Your task to perform on an android device: turn on improve location accuracy Image 0: 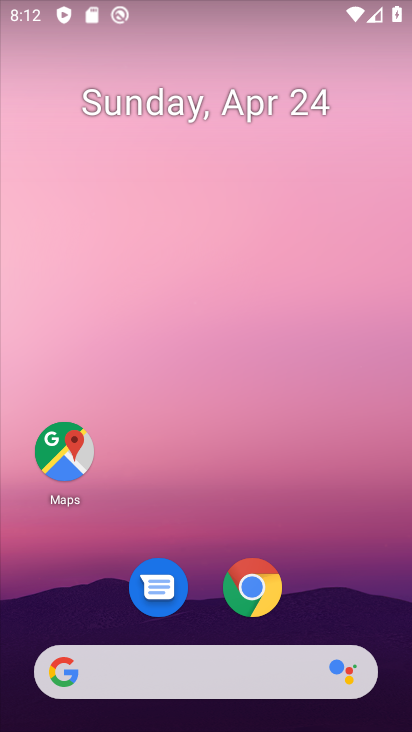
Step 0: drag from (216, 561) to (292, 11)
Your task to perform on an android device: turn on improve location accuracy Image 1: 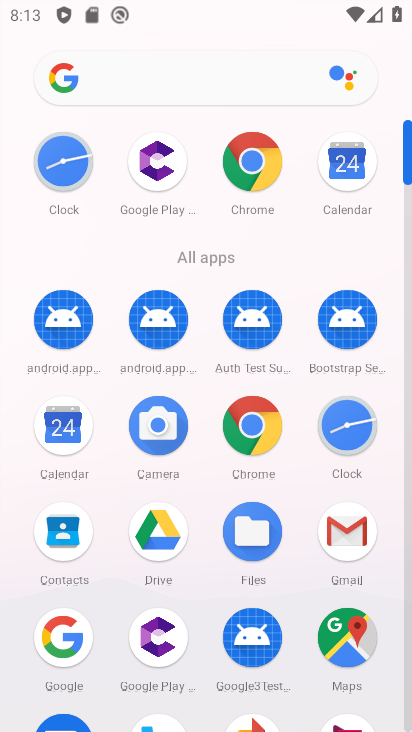
Step 1: drag from (169, 554) to (233, 67)
Your task to perform on an android device: turn on improve location accuracy Image 2: 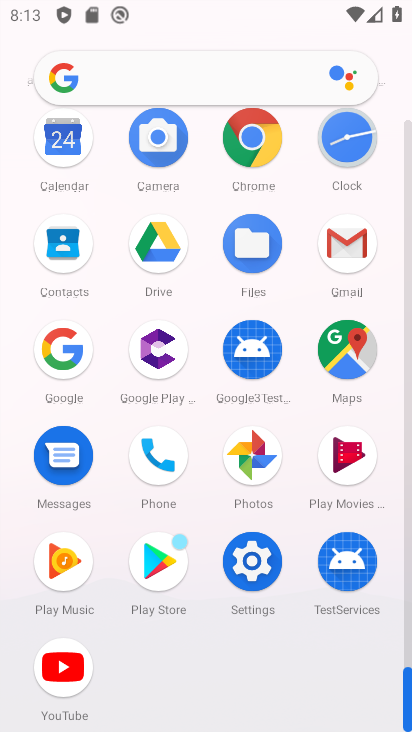
Step 2: click (254, 562)
Your task to perform on an android device: turn on improve location accuracy Image 3: 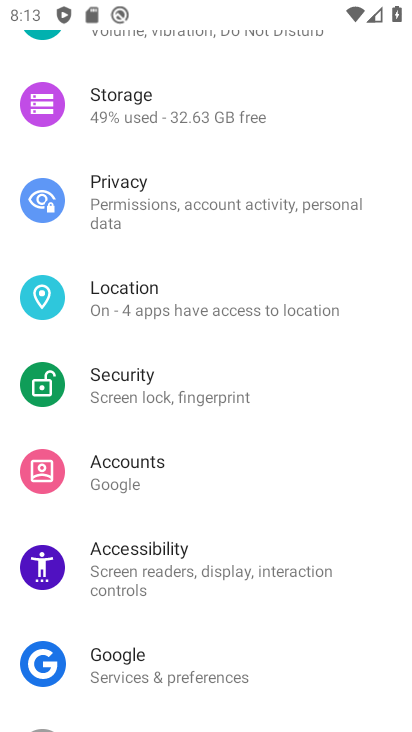
Step 3: click (151, 285)
Your task to perform on an android device: turn on improve location accuracy Image 4: 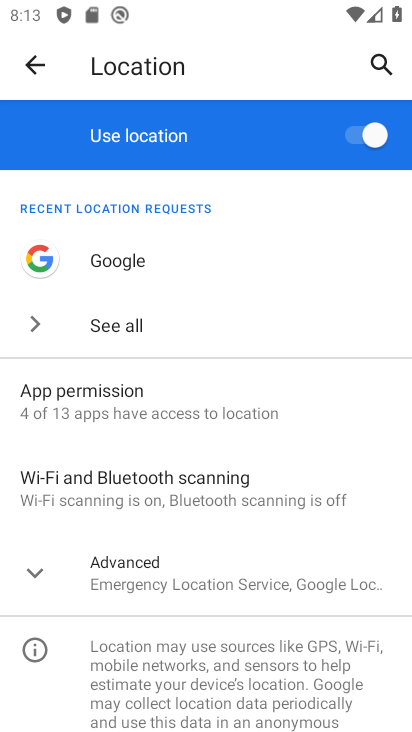
Step 4: click (186, 583)
Your task to perform on an android device: turn on improve location accuracy Image 5: 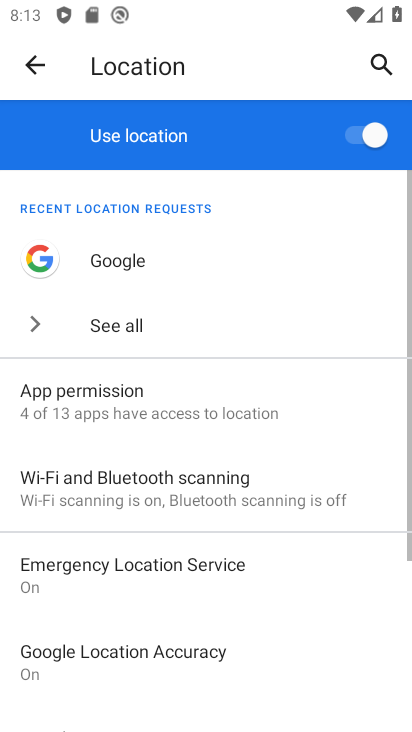
Step 5: drag from (156, 614) to (193, 321)
Your task to perform on an android device: turn on improve location accuracy Image 6: 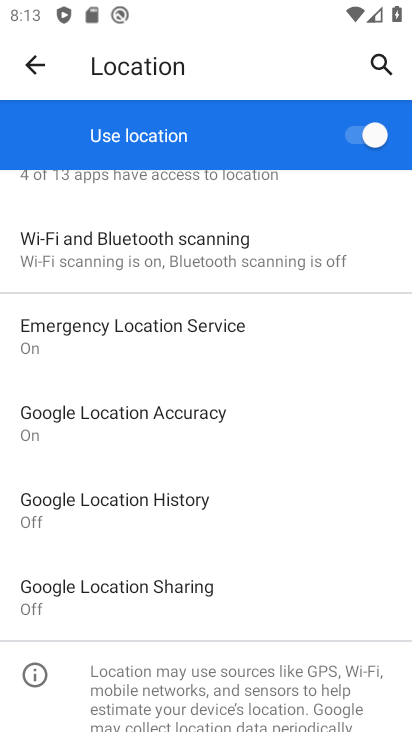
Step 6: click (124, 417)
Your task to perform on an android device: turn on improve location accuracy Image 7: 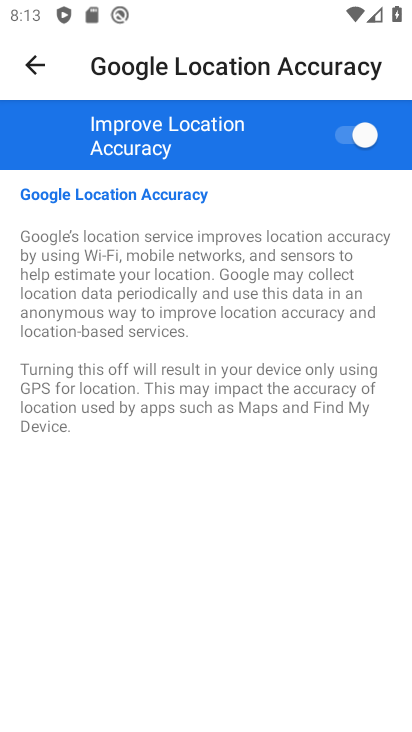
Step 7: task complete